Your task to perform on an android device: open app "Lyft - Rideshare, Bikes, Scooters & Transit" (install if not already installed) and enter user name: "deliberating@gmail.com" and password: "preyed" Image 0: 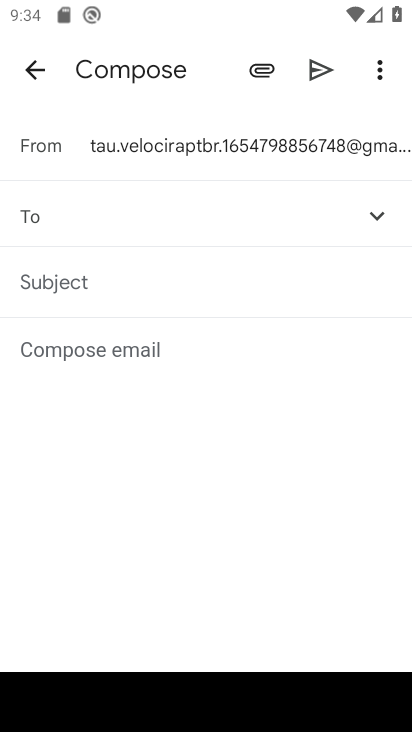
Step 0: press home button
Your task to perform on an android device: open app "Lyft - Rideshare, Bikes, Scooters & Transit" (install if not already installed) and enter user name: "deliberating@gmail.com" and password: "preyed" Image 1: 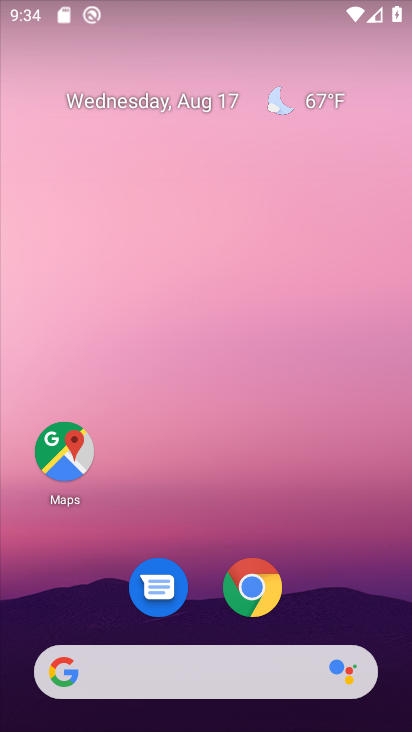
Step 1: drag from (192, 519) to (4, 1)
Your task to perform on an android device: open app "Lyft - Rideshare, Bikes, Scooters & Transit" (install if not already installed) and enter user name: "deliberating@gmail.com" and password: "preyed" Image 2: 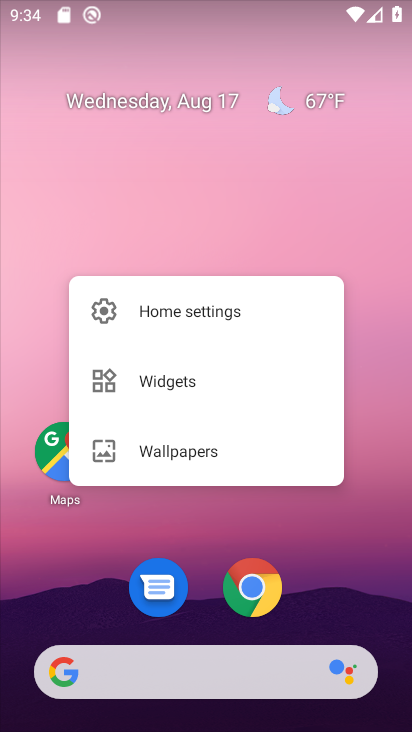
Step 2: click (199, 619)
Your task to perform on an android device: open app "Lyft - Rideshare, Bikes, Scooters & Transit" (install if not already installed) and enter user name: "deliberating@gmail.com" and password: "preyed" Image 3: 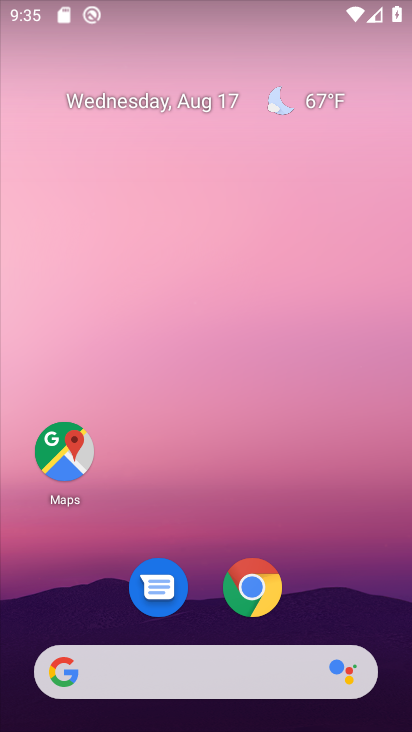
Step 3: click (199, 37)
Your task to perform on an android device: open app "Lyft - Rideshare, Bikes, Scooters & Transit" (install if not already installed) and enter user name: "deliberating@gmail.com" and password: "preyed" Image 4: 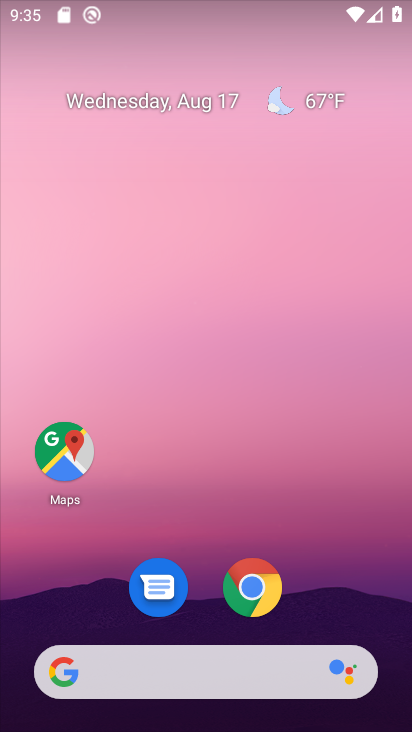
Step 4: drag from (200, 564) to (201, 117)
Your task to perform on an android device: open app "Lyft - Rideshare, Bikes, Scooters & Transit" (install if not already installed) and enter user name: "deliberating@gmail.com" and password: "preyed" Image 5: 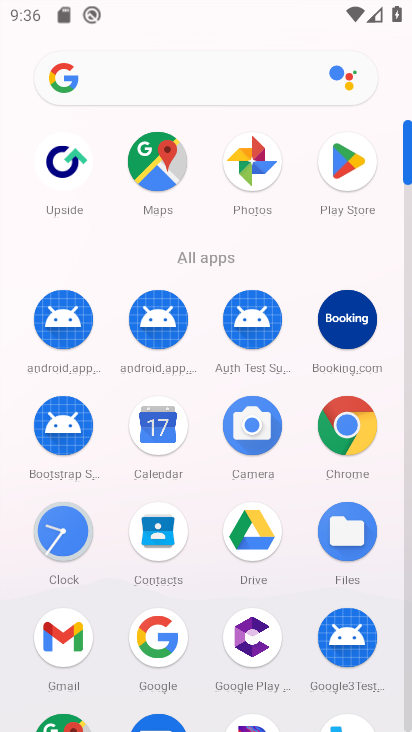
Step 5: click (350, 166)
Your task to perform on an android device: open app "Lyft - Rideshare, Bikes, Scooters & Transit" (install if not already installed) and enter user name: "deliberating@gmail.com" and password: "preyed" Image 6: 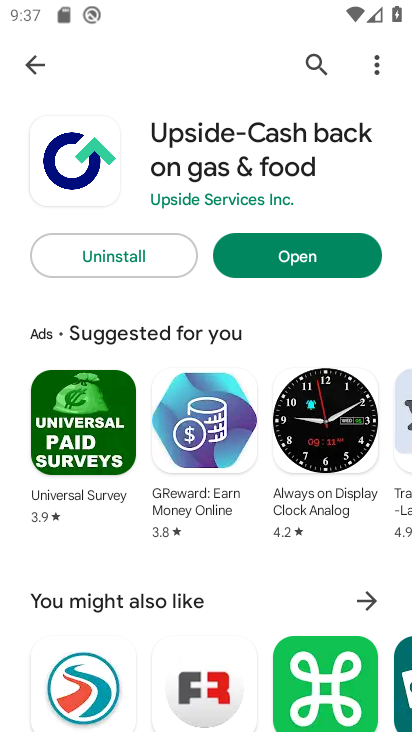
Step 6: click (31, 66)
Your task to perform on an android device: open app "Lyft - Rideshare, Bikes, Scooters & Transit" (install if not already installed) and enter user name: "deliberating@gmail.com" and password: "preyed" Image 7: 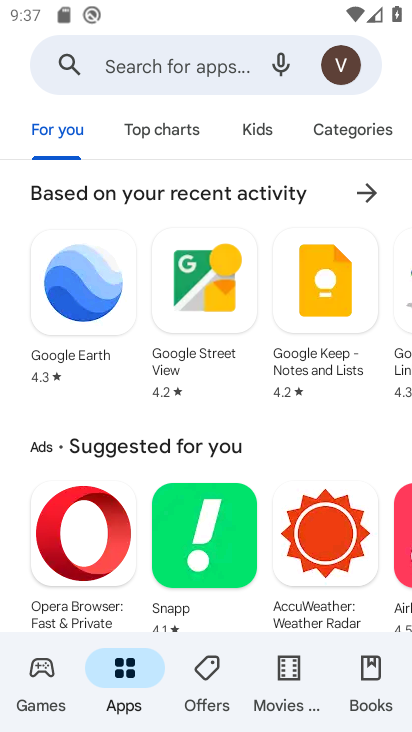
Step 7: click (158, 84)
Your task to perform on an android device: open app "Lyft - Rideshare, Bikes, Scooters & Transit" (install if not already installed) and enter user name: "deliberating@gmail.com" and password: "preyed" Image 8: 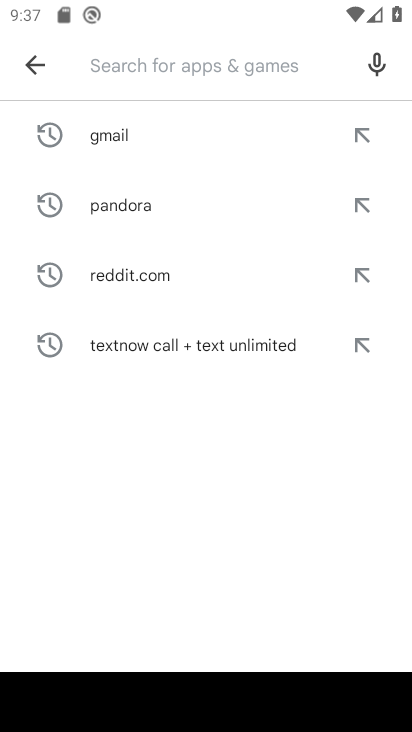
Step 8: type "Lyft"
Your task to perform on an android device: open app "Lyft - Rideshare, Bikes, Scooters & Transit" (install if not already installed) and enter user name: "deliberating@gmail.com" and password: "preyed" Image 9: 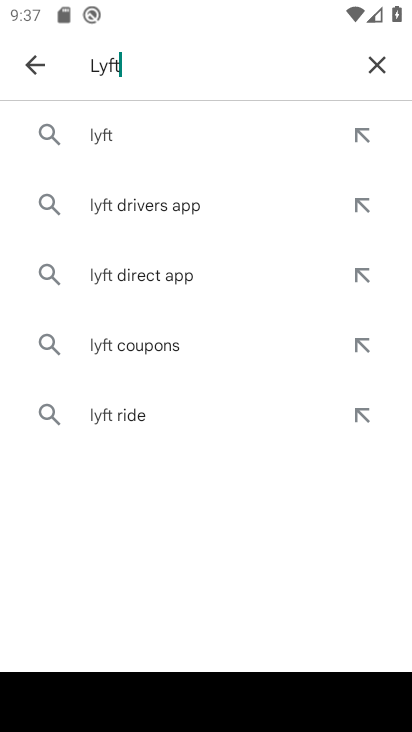
Step 9: click (98, 133)
Your task to perform on an android device: open app "Lyft - Rideshare, Bikes, Scooters & Transit" (install if not already installed) and enter user name: "deliberating@gmail.com" and password: "preyed" Image 10: 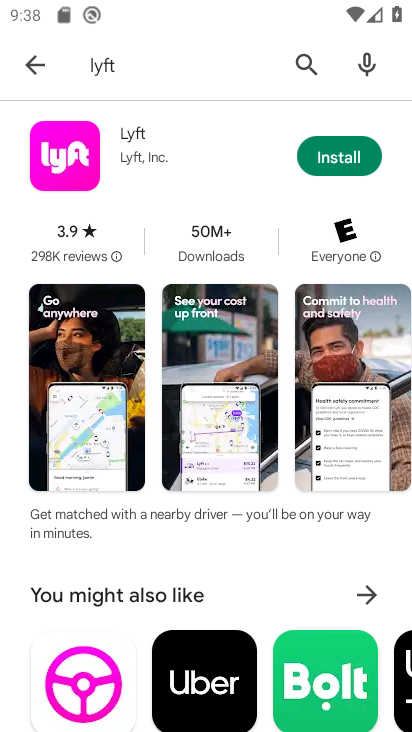
Step 10: click (334, 166)
Your task to perform on an android device: open app "Lyft - Rideshare, Bikes, Scooters & Transit" (install if not already installed) and enter user name: "deliberating@gmail.com" and password: "preyed" Image 11: 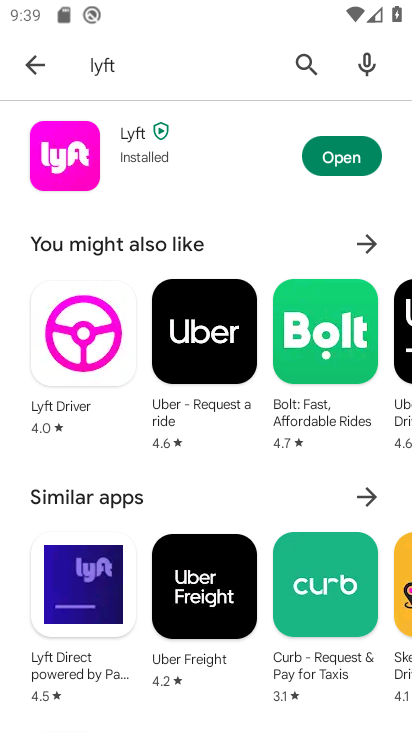
Step 11: click (334, 166)
Your task to perform on an android device: open app "Lyft - Rideshare, Bikes, Scooters & Transit" (install if not already installed) and enter user name: "deliberating@gmail.com" and password: "preyed" Image 12: 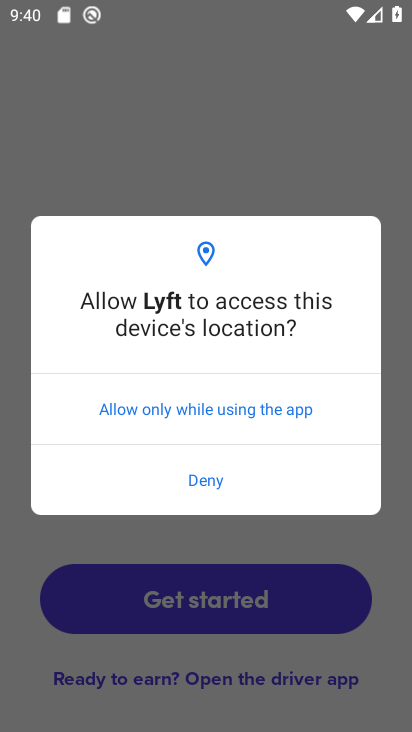
Step 12: click (187, 404)
Your task to perform on an android device: open app "Lyft - Rideshare, Bikes, Scooters & Transit" (install if not already installed) and enter user name: "deliberating@gmail.com" and password: "preyed" Image 13: 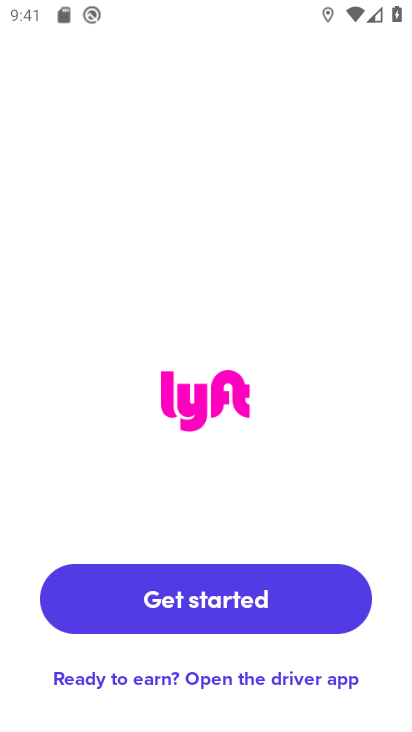
Step 13: click (142, 573)
Your task to perform on an android device: open app "Lyft - Rideshare, Bikes, Scooters & Transit" (install if not already installed) and enter user name: "deliberating@gmail.com" and password: "preyed" Image 14: 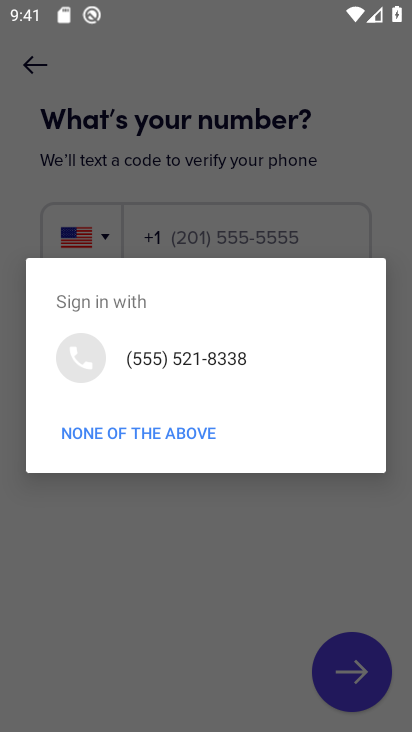
Step 14: click (177, 363)
Your task to perform on an android device: open app "Lyft - Rideshare, Bikes, Scooters & Transit" (install if not already installed) and enter user name: "deliberating@gmail.com" and password: "preyed" Image 15: 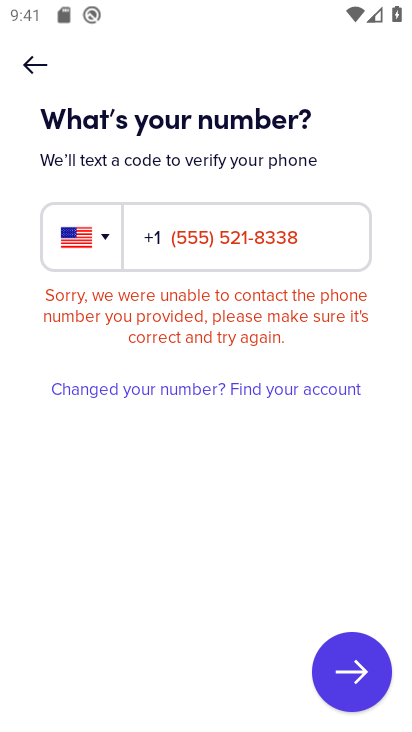
Step 15: click (326, 663)
Your task to perform on an android device: open app "Lyft - Rideshare, Bikes, Scooters & Transit" (install if not already installed) and enter user name: "deliberating@gmail.com" and password: "preyed" Image 16: 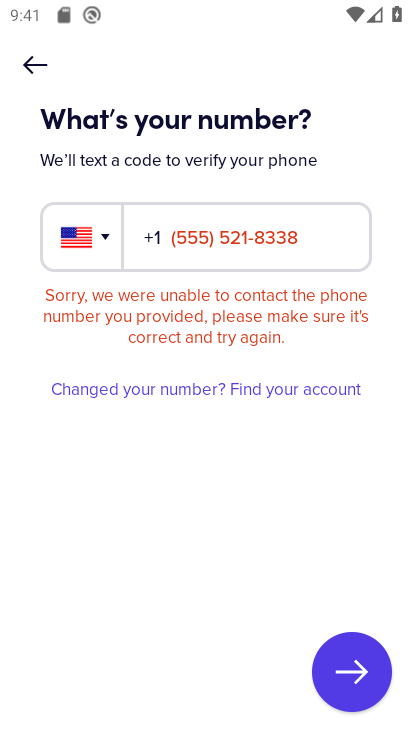
Step 16: click (342, 669)
Your task to perform on an android device: open app "Lyft - Rideshare, Bikes, Scooters & Transit" (install if not already installed) and enter user name: "deliberating@gmail.com" and password: "preyed" Image 17: 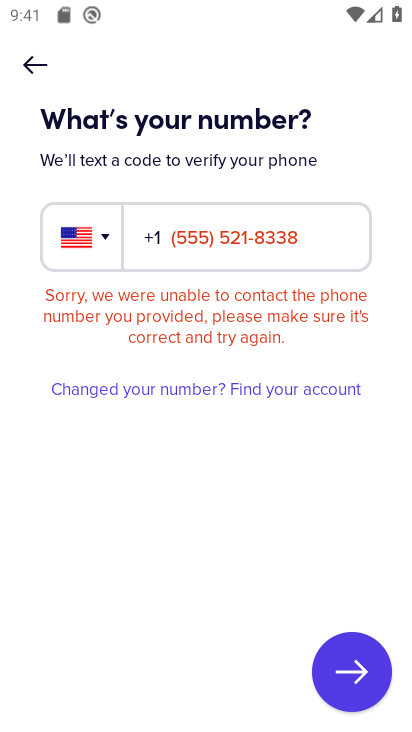
Step 17: task complete